Your task to perform on an android device: Go to network settings Image 0: 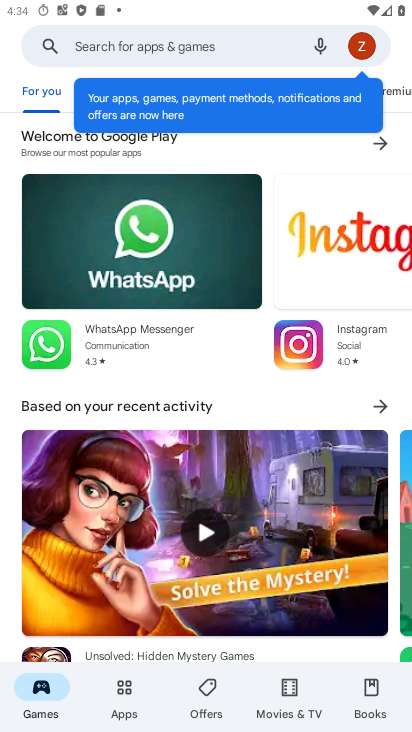
Step 0: press home button
Your task to perform on an android device: Go to network settings Image 1: 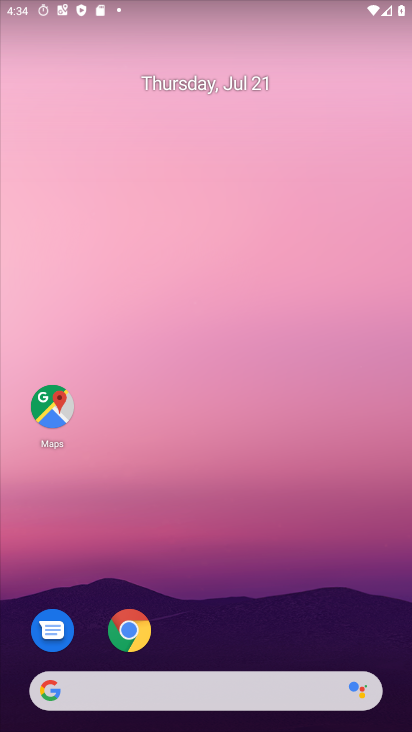
Step 1: drag from (226, 690) to (261, 1)
Your task to perform on an android device: Go to network settings Image 2: 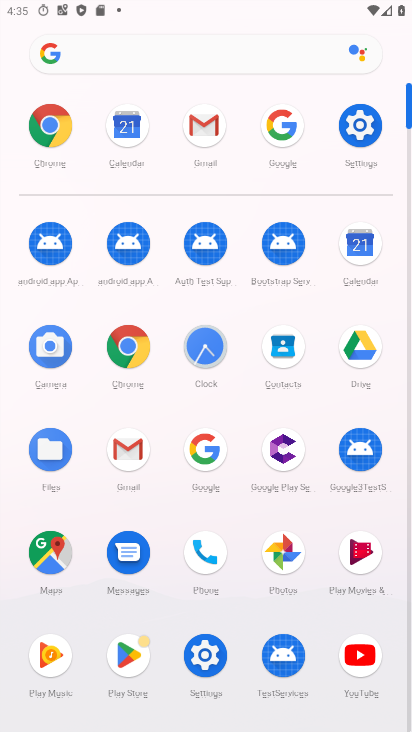
Step 2: click (360, 124)
Your task to perform on an android device: Go to network settings Image 3: 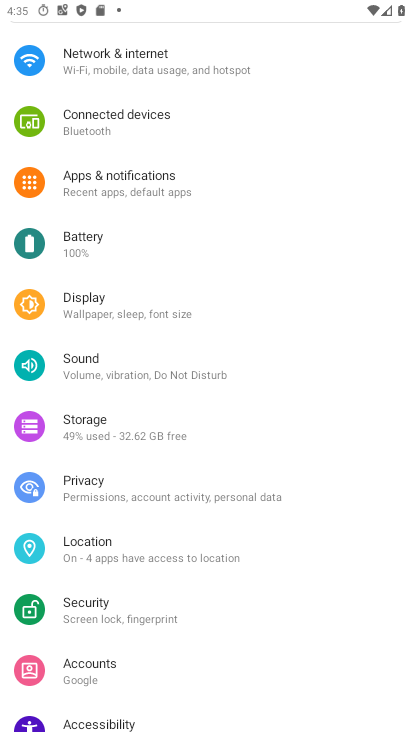
Step 3: click (226, 71)
Your task to perform on an android device: Go to network settings Image 4: 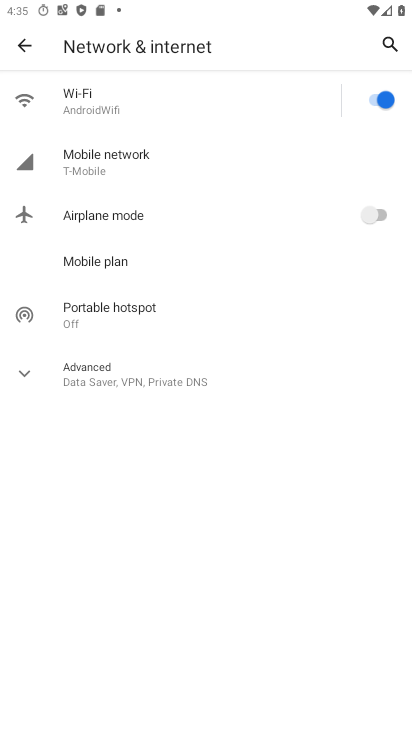
Step 4: task complete